Your task to perform on an android device: Open accessibility settings Image 0: 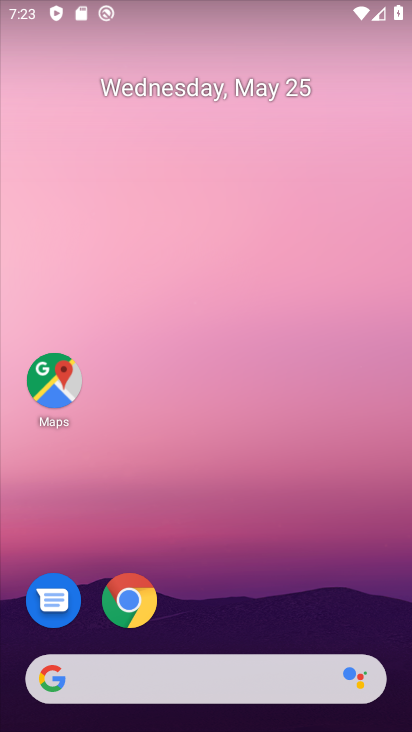
Step 0: drag from (340, 583) to (322, 102)
Your task to perform on an android device: Open accessibility settings Image 1: 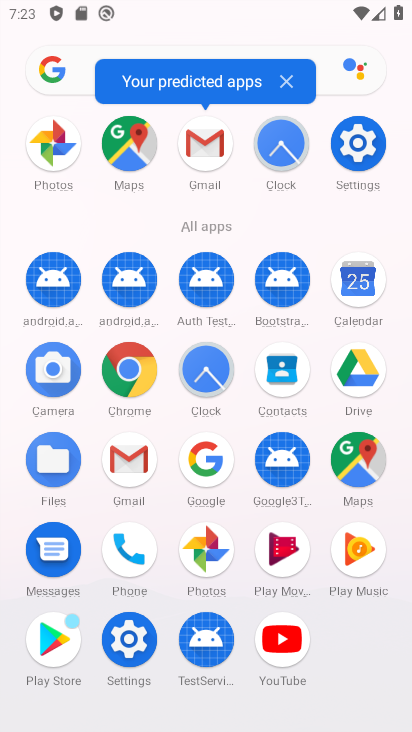
Step 1: click (347, 153)
Your task to perform on an android device: Open accessibility settings Image 2: 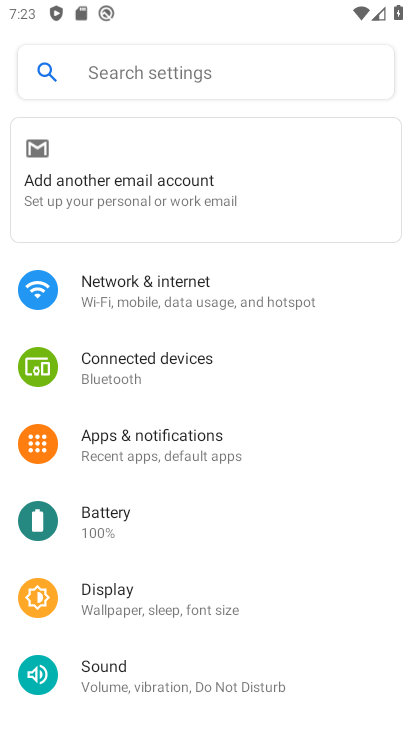
Step 2: drag from (302, 680) to (341, 299)
Your task to perform on an android device: Open accessibility settings Image 3: 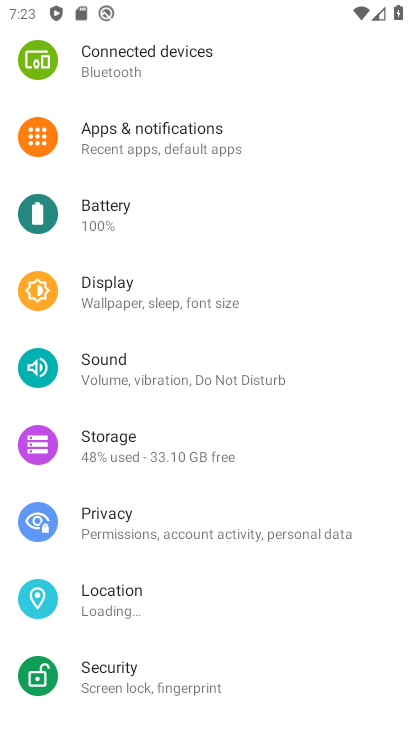
Step 3: drag from (326, 595) to (338, 245)
Your task to perform on an android device: Open accessibility settings Image 4: 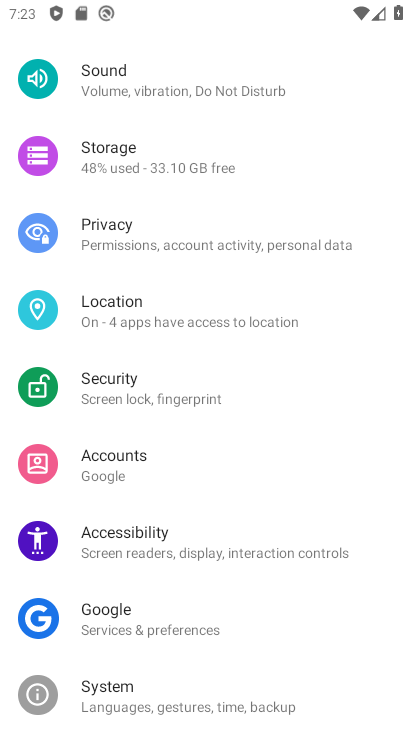
Step 4: click (286, 546)
Your task to perform on an android device: Open accessibility settings Image 5: 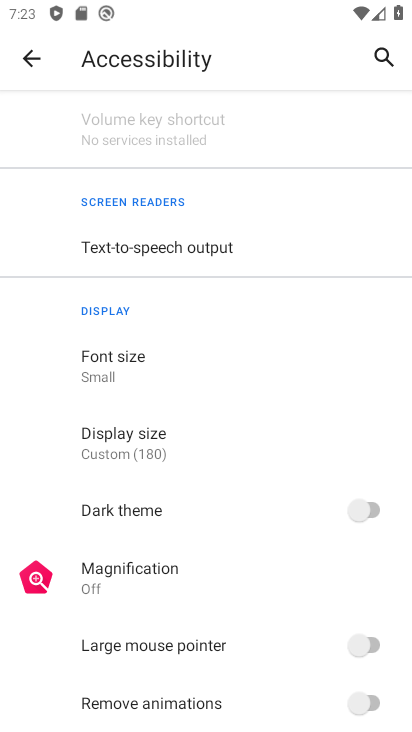
Step 5: task complete